Your task to perform on an android device: Open the Play Movies app and select the watchlist tab. Image 0: 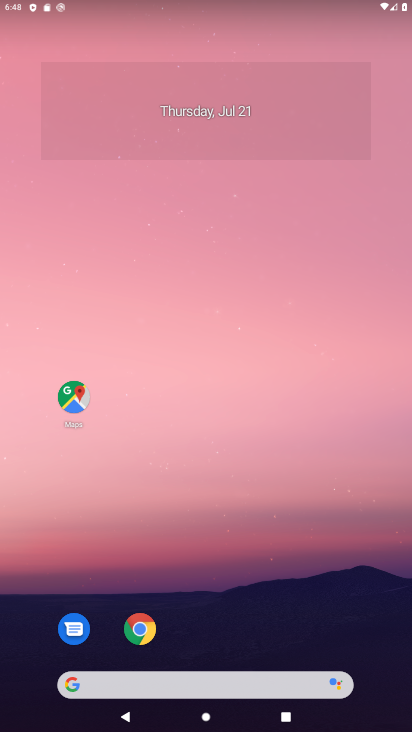
Step 0: drag from (230, 635) to (243, 61)
Your task to perform on an android device: Open the Play Movies app and select the watchlist tab. Image 1: 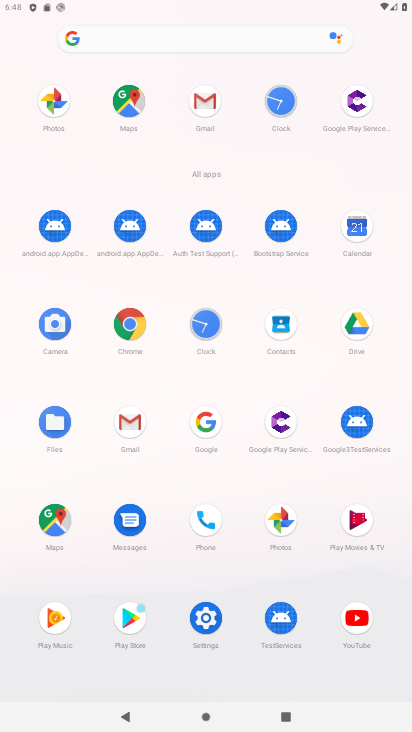
Step 1: click (355, 528)
Your task to perform on an android device: Open the Play Movies app and select the watchlist tab. Image 2: 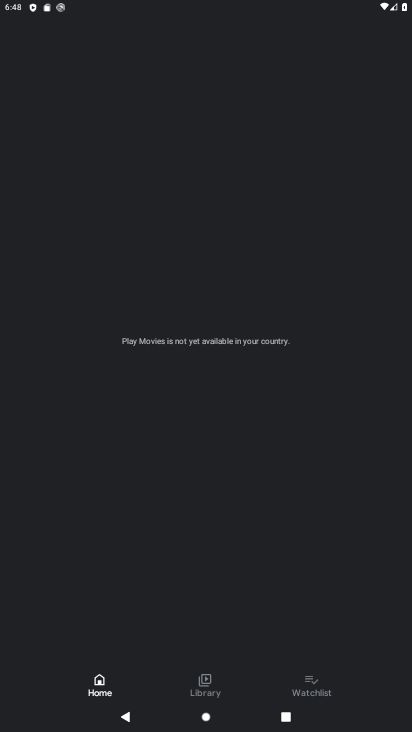
Step 2: click (323, 695)
Your task to perform on an android device: Open the Play Movies app and select the watchlist tab. Image 3: 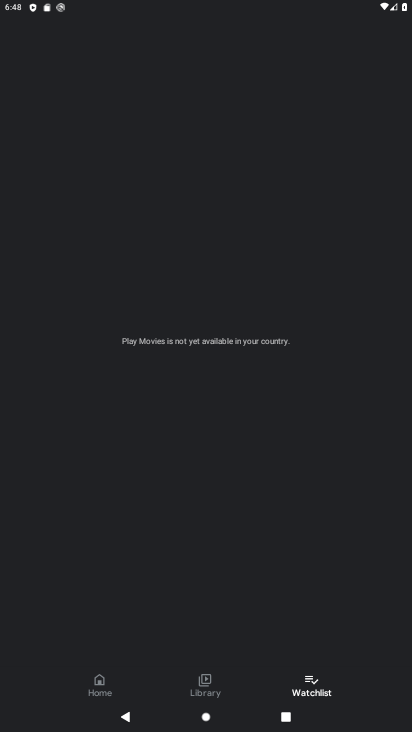
Step 3: task complete